Your task to perform on an android device: clear all cookies in the chrome app Image 0: 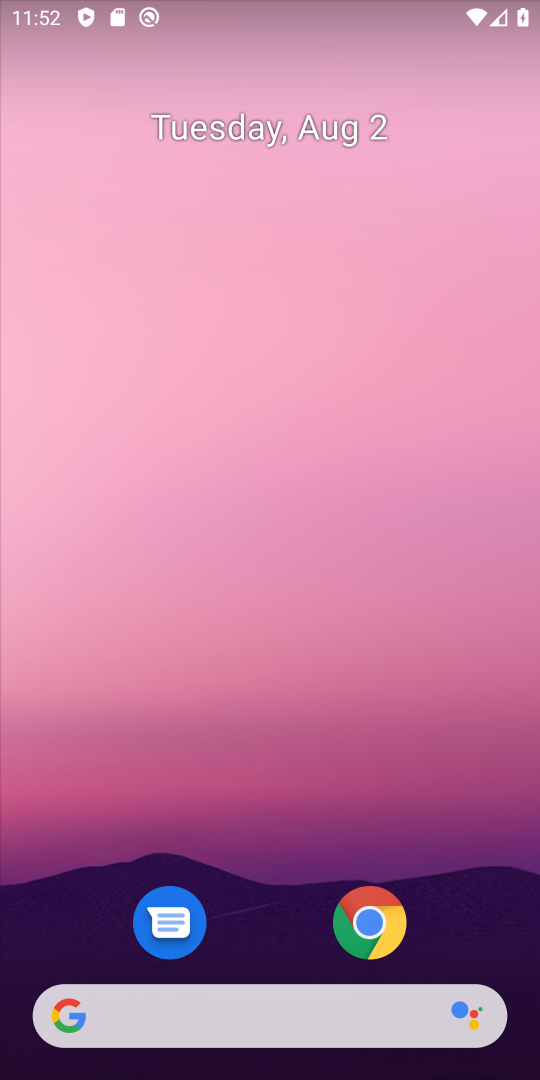
Step 0: click (372, 918)
Your task to perform on an android device: clear all cookies in the chrome app Image 1: 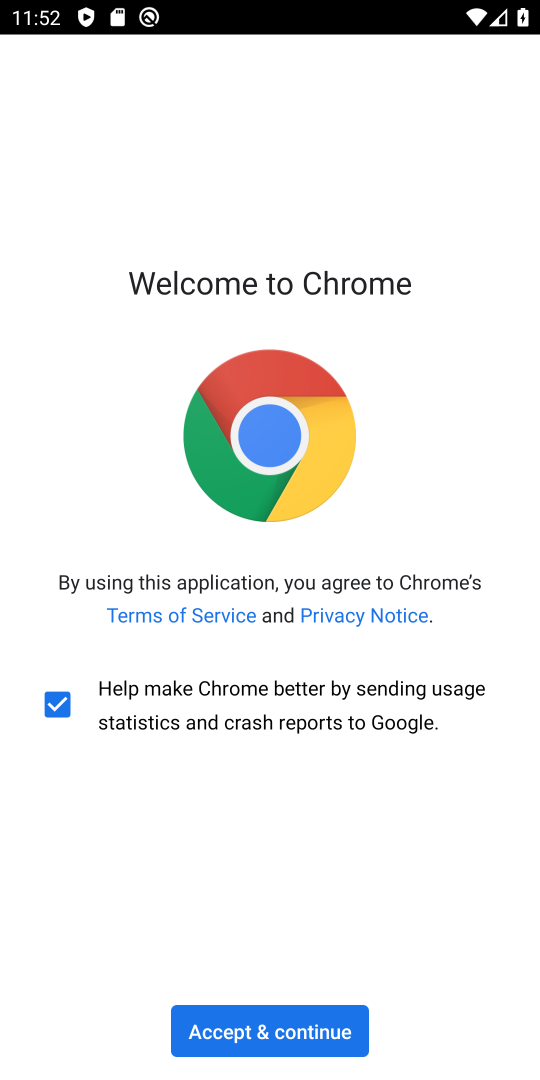
Step 1: click (336, 1040)
Your task to perform on an android device: clear all cookies in the chrome app Image 2: 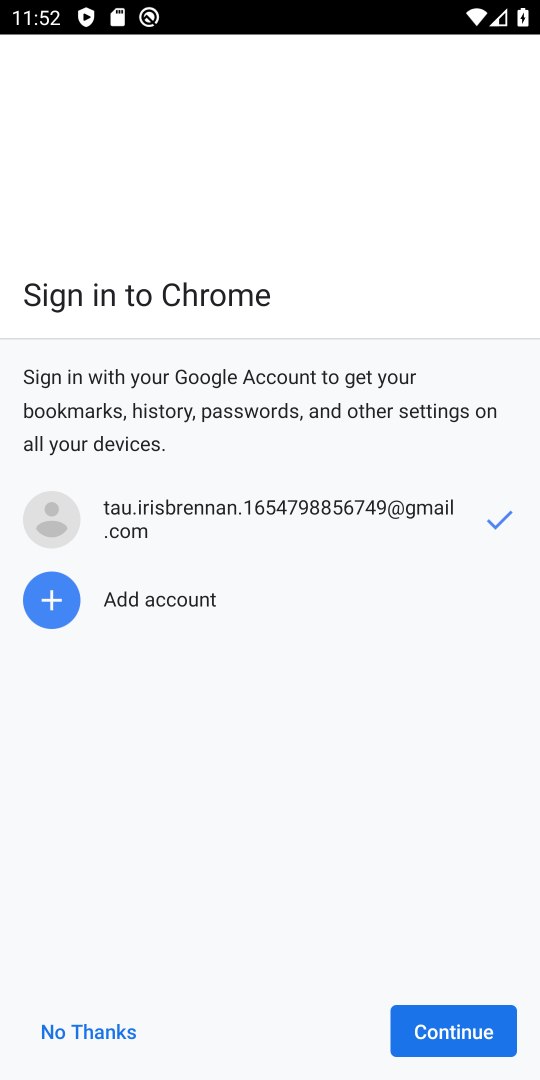
Step 2: click (449, 1026)
Your task to perform on an android device: clear all cookies in the chrome app Image 3: 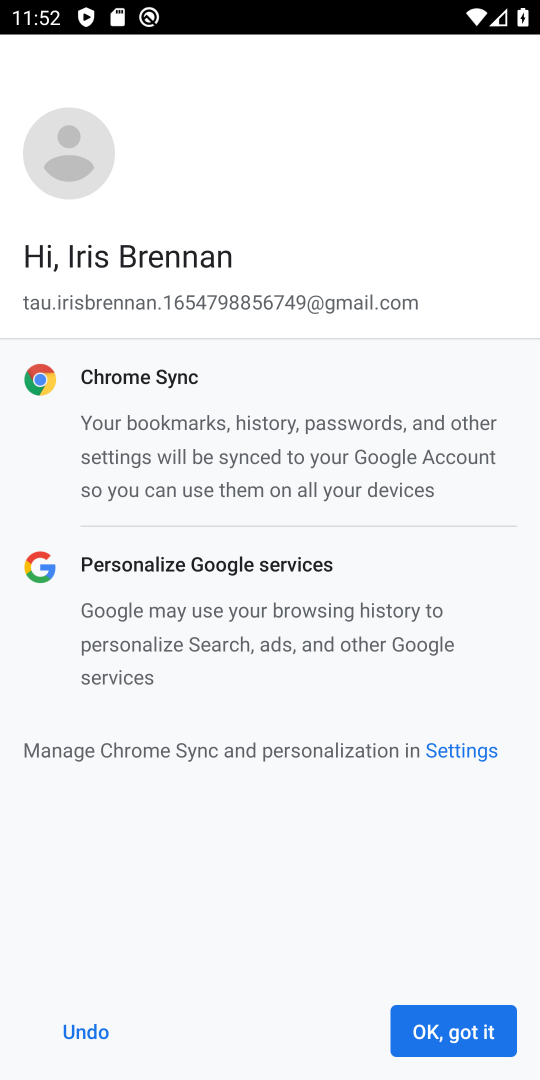
Step 3: click (445, 1026)
Your task to perform on an android device: clear all cookies in the chrome app Image 4: 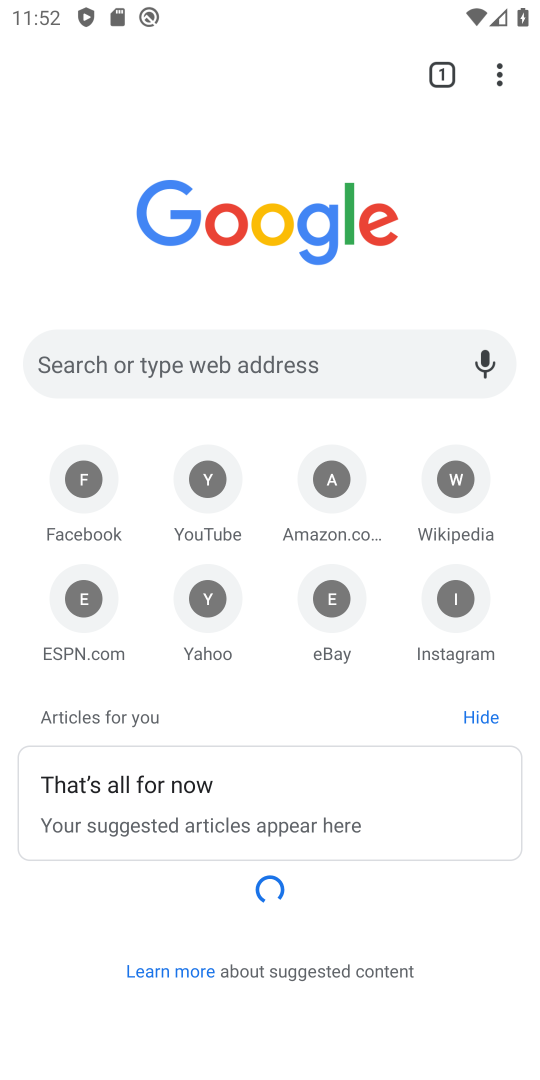
Step 4: click (481, 71)
Your task to perform on an android device: clear all cookies in the chrome app Image 5: 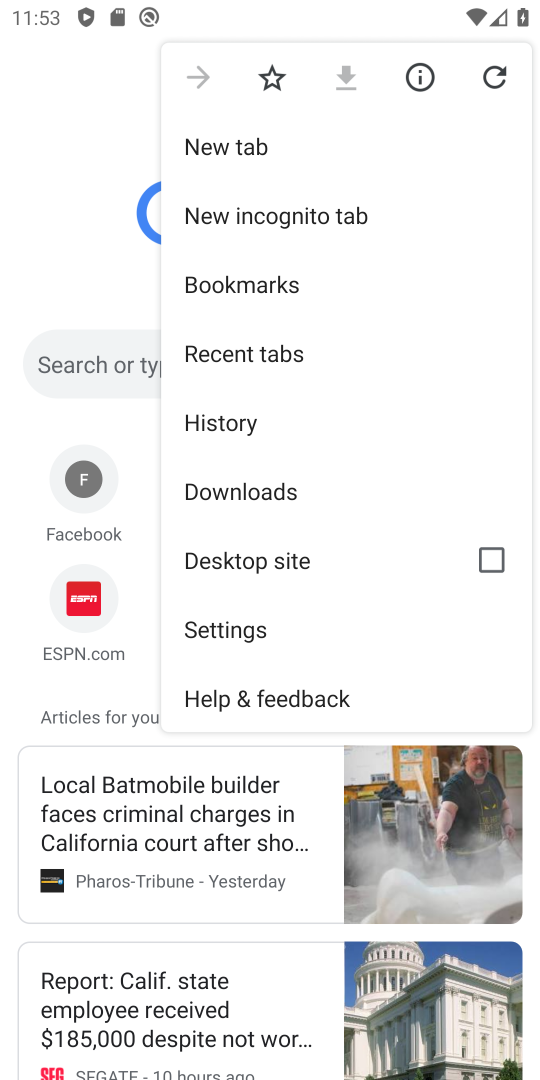
Step 5: click (245, 422)
Your task to perform on an android device: clear all cookies in the chrome app Image 6: 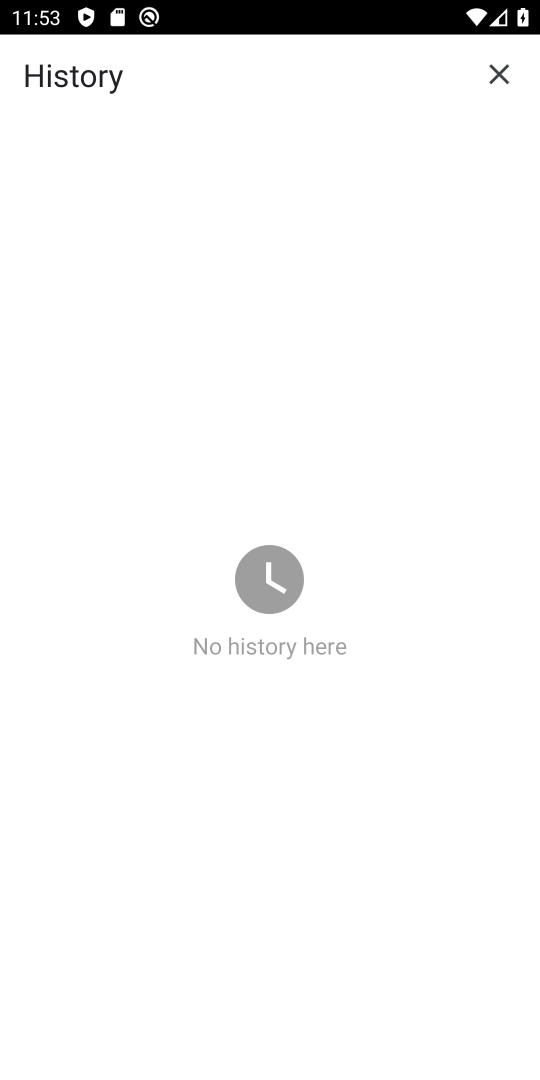
Step 6: task complete